Your task to perform on an android device: Open the map Image 0: 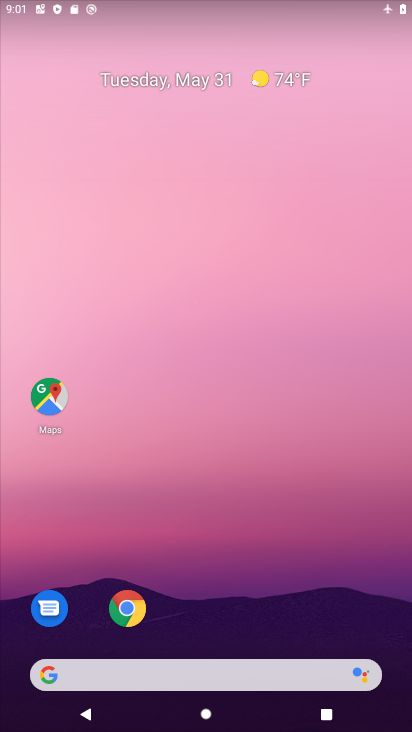
Step 0: click (42, 405)
Your task to perform on an android device: Open the map Image 1: 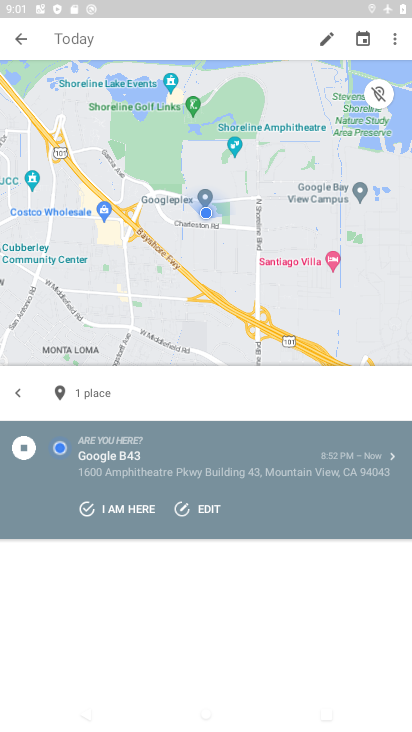
Step 1: click (14, 45)
Your task to perform on an android device: Open the map Image 2: 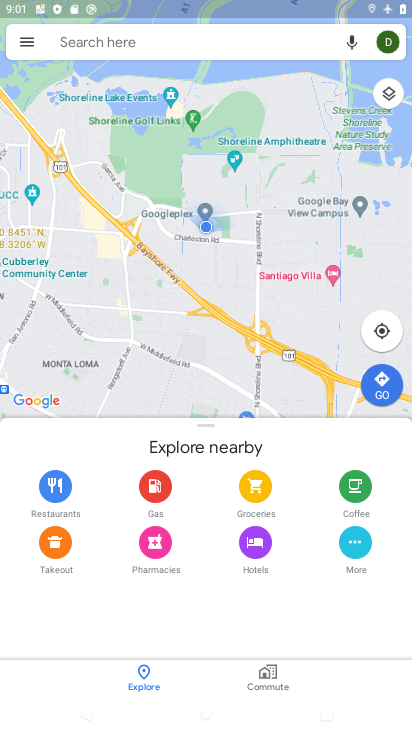
Step 2: task complete